Your task to perform on an android device: What's on the menu at Chipotle? Image 0: 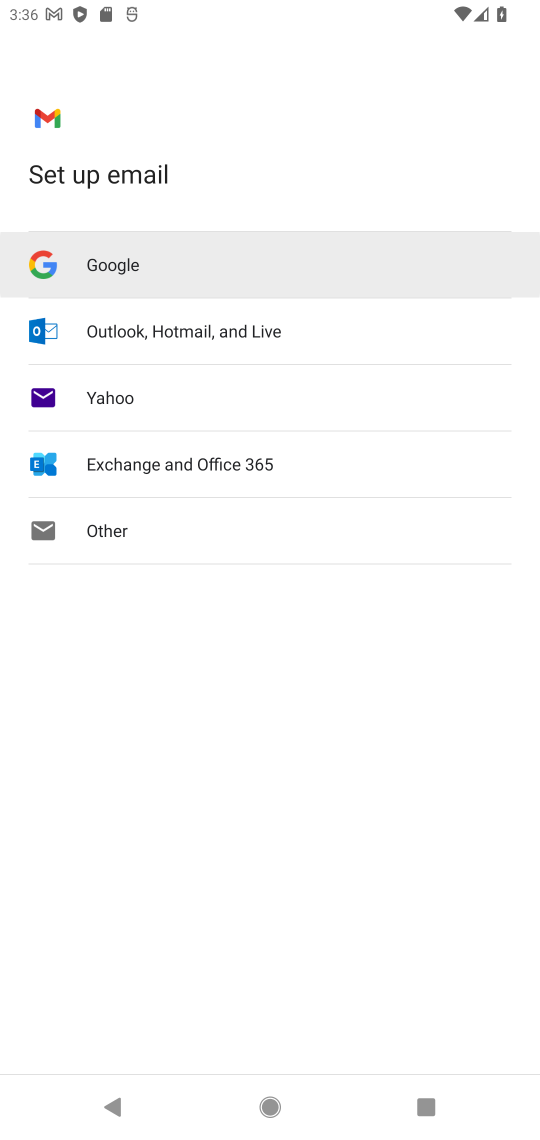
Step 0: press home button
Your task to perform on an android device: What's on the menu at Chipotle? Image 1: 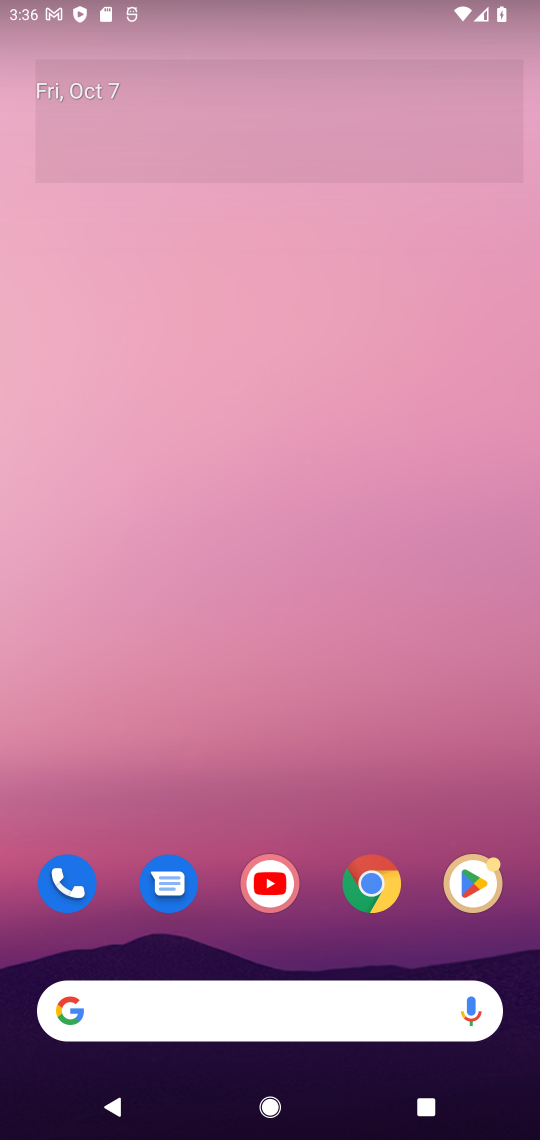
Step 1: click (353, 877)
Your task to perform on an android device: What's on the menu at Chipotle? Image 2: 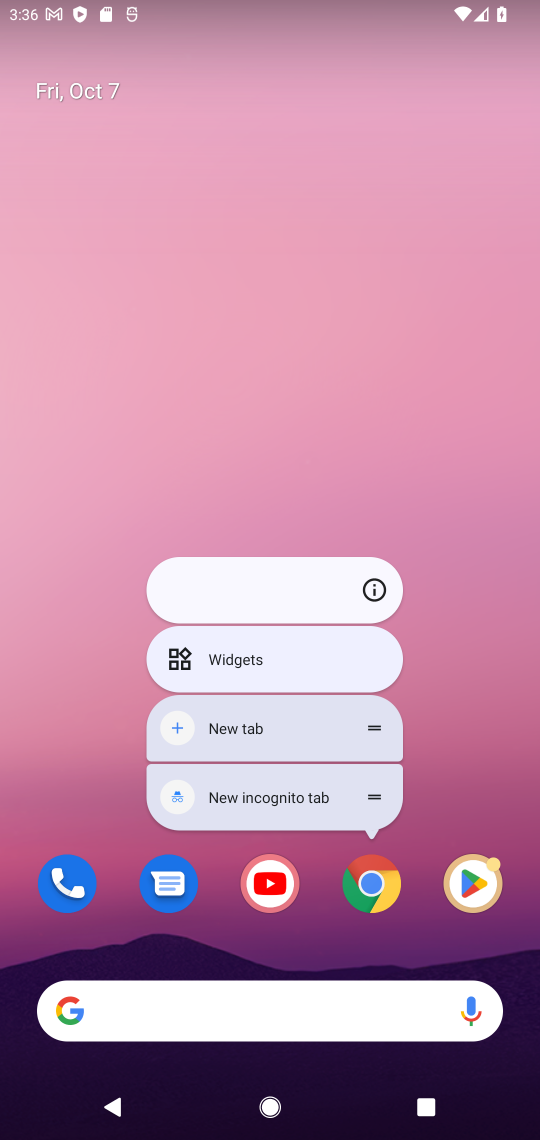
Step 2: click (353, 877)
Your task to perform on an android device: What's on the menu at Chipotle? Image 3: 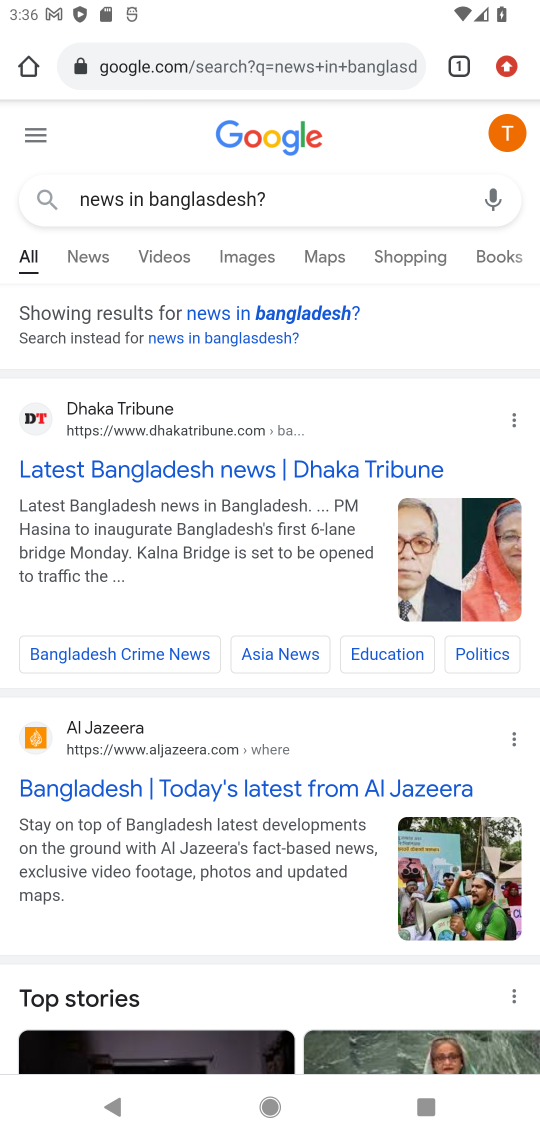
Step 3: click (322, 192)
Your task to perform on an android device: What's on the menu at Chipotle? Image 4: 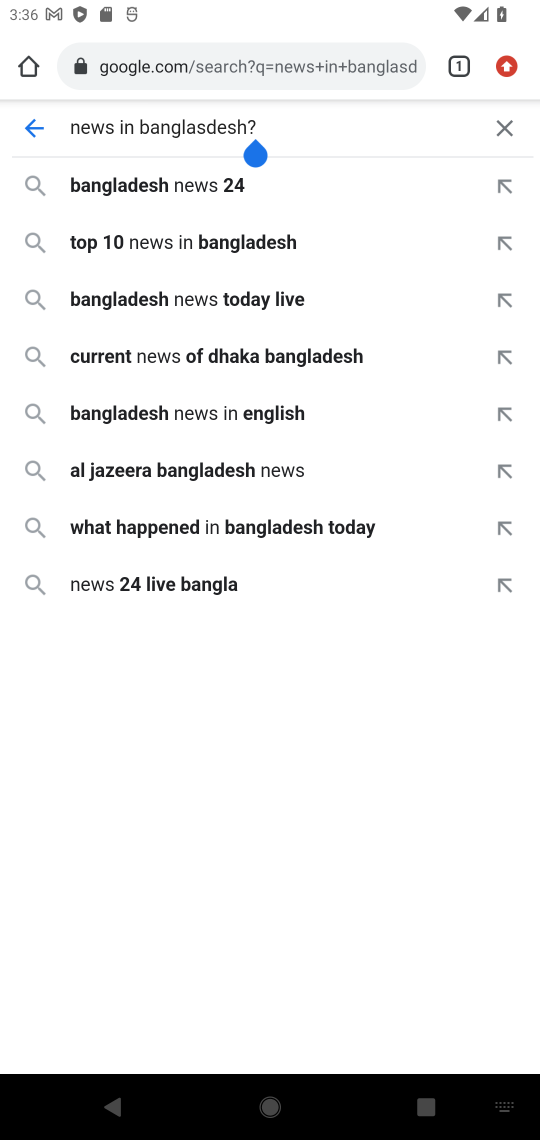
Step 4: click (502, 130)
Your task to perform on an android device: What's on the menu at Chipotle? Image 5: 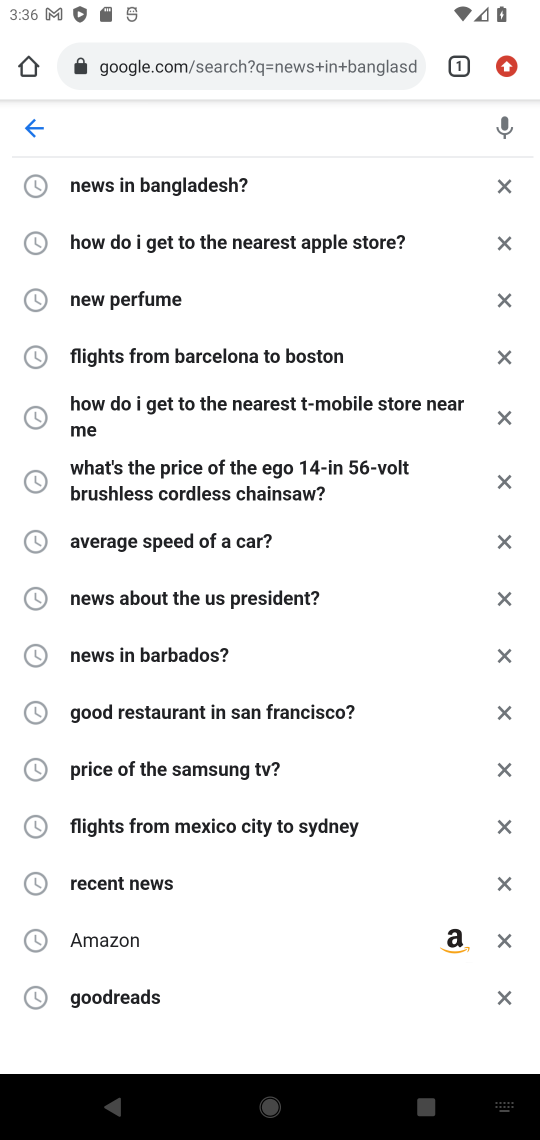
Step 5: type "What's on the menu at Chipotle?"
Your task to perform on an android device: What's on the menu at Chipotle? Image 6: 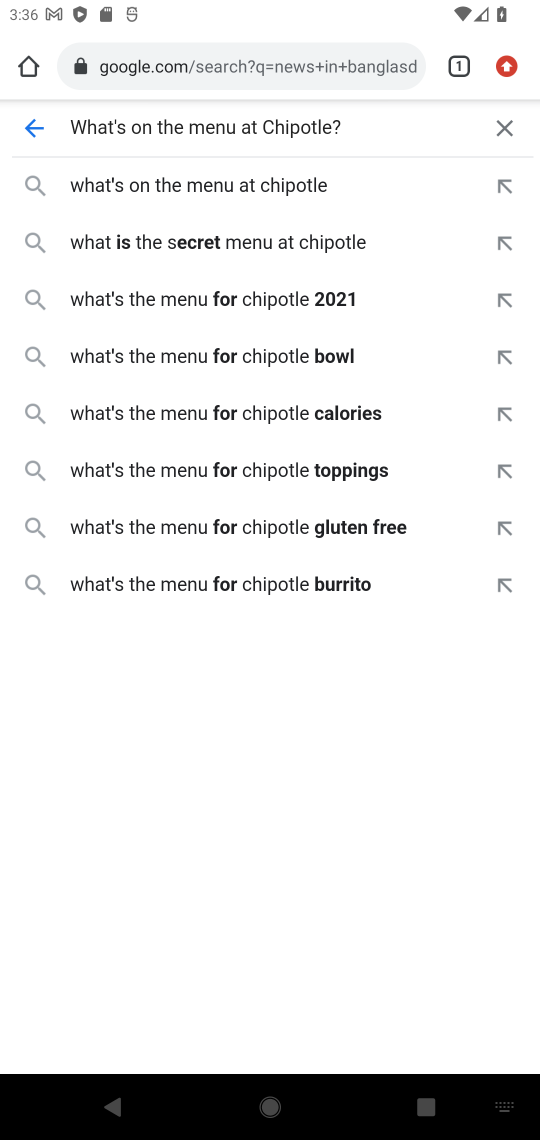
Step 6: press enter
Your task to perform on an android device: What's on the menu at Chipotle? Image 7: 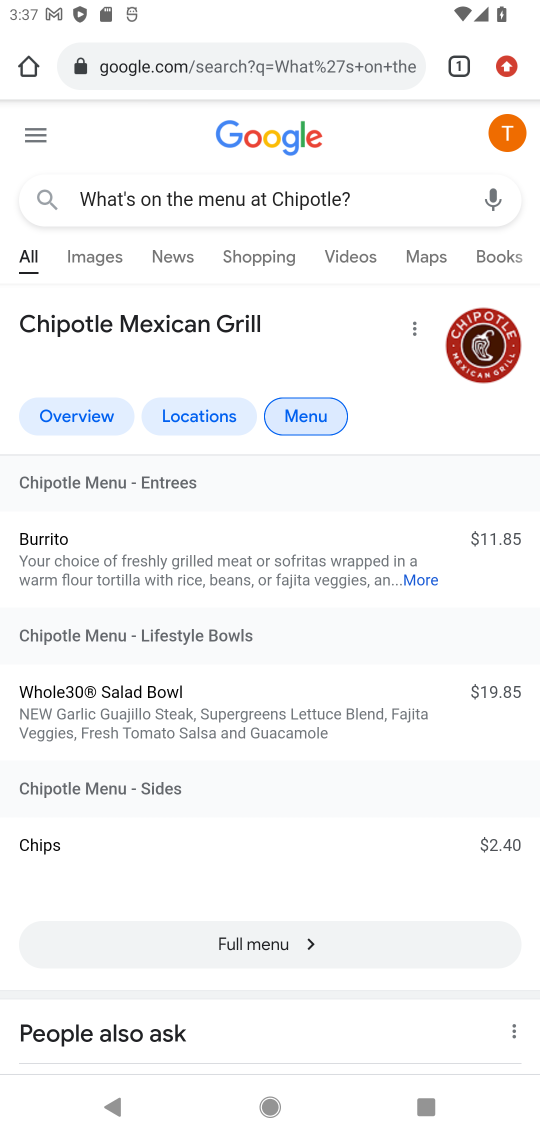
Step 7: task complete